Your task to perform on an android device: turn notification dots off Image 0: 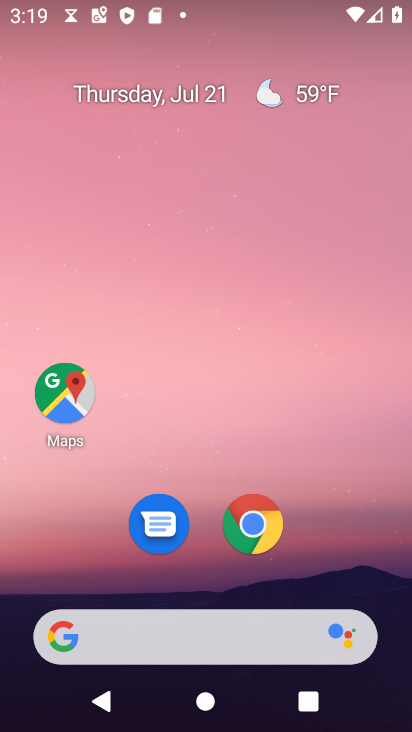
Step 0: press home button
Your task to perform on an android device: turn notification dots off Image 1: 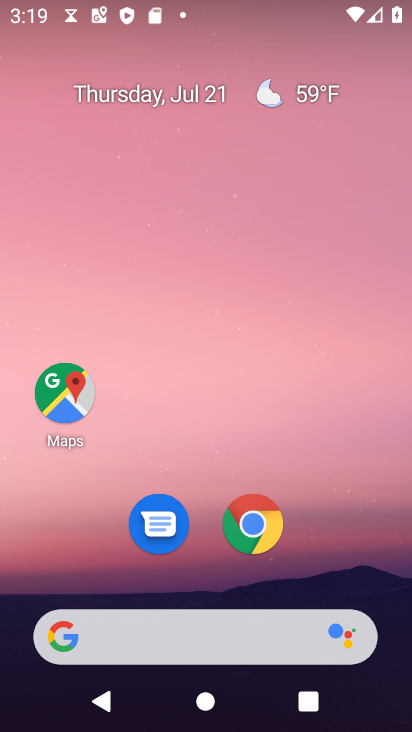
Step 1: drag from (202, 402) to (252, 77)
Your task to perform on an android device: turn notification dots off Image 2: 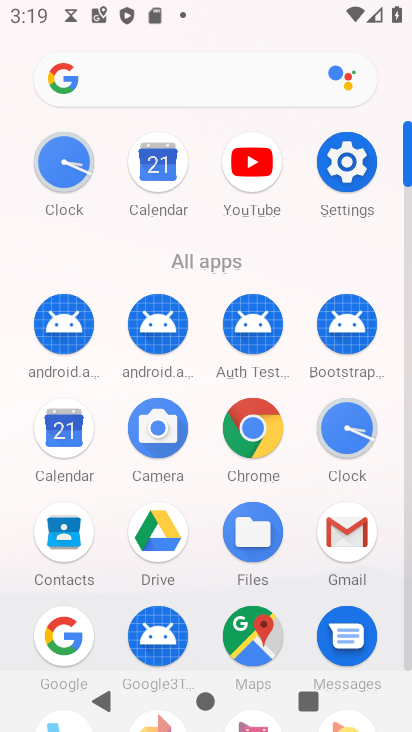
Step 2: click (354, 174)
Your task to perform on an android device: turn notification dots off Image 3: 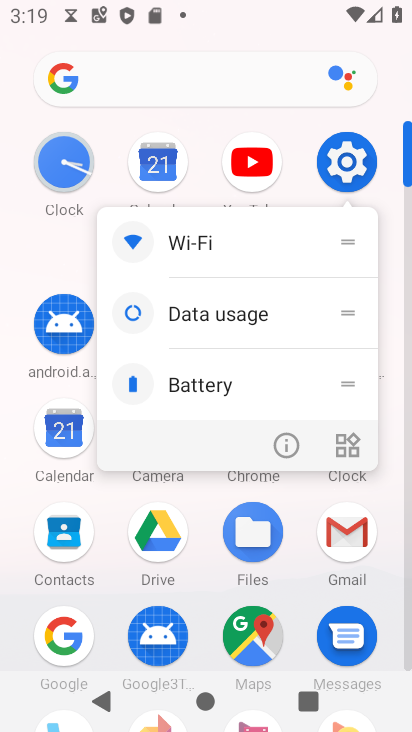
Step 3: click (351, 163)
Your task to perform on an android device: turn notification dots off Image 4: 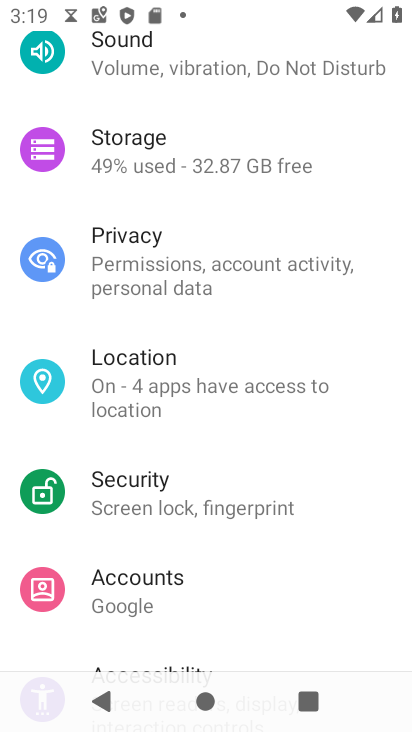
Step 4: drag from (341, 132) to (295, 621)
Your task to perform on an android device: turn notification dots off Image 5: 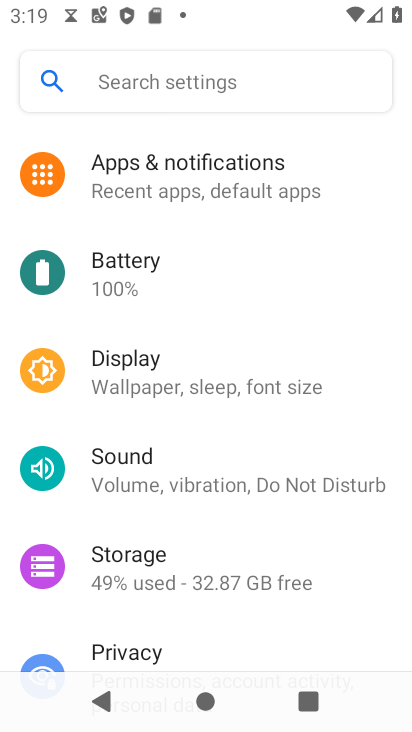
Step 5: click (220, 159)
Your task to perform on an android device: turn notification dots off Image 6: 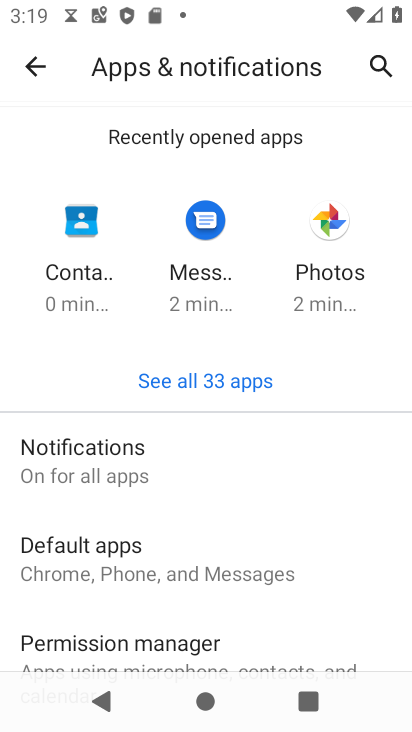
Step 6: click (129, 465)
Your task to perform on an android device: turn notification dots off Image 7: 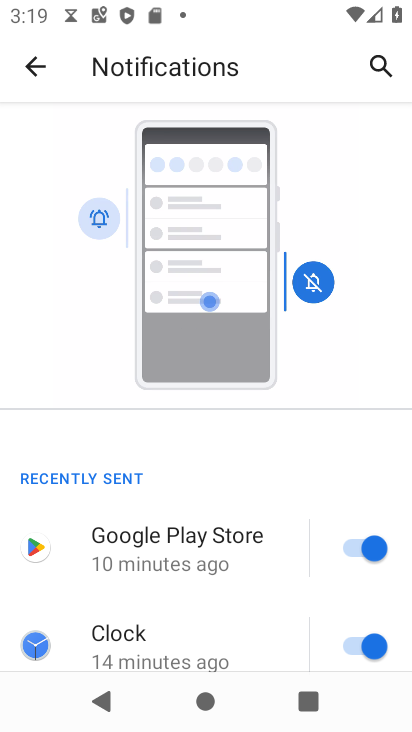
Step 7: drag from (201, 600) to (262, 85)
Your task to perform on an android device: turn notification dots off Image 8: 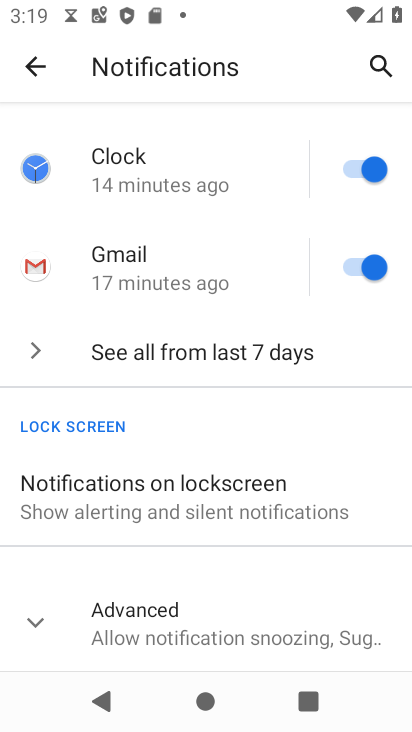
Step 8: click (175, 620)
Your task to perform on an android device: turn notification dots off Image 9: 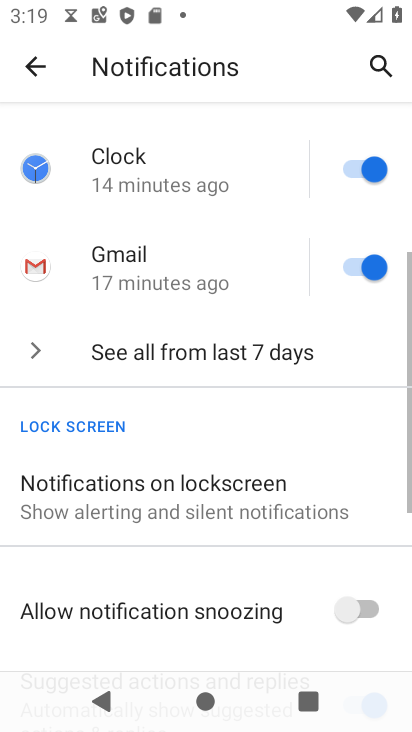
Step 9: drag from (211, 644) to (288, 93)
Your task to perform on an android device: turn notification dots off Image 10: 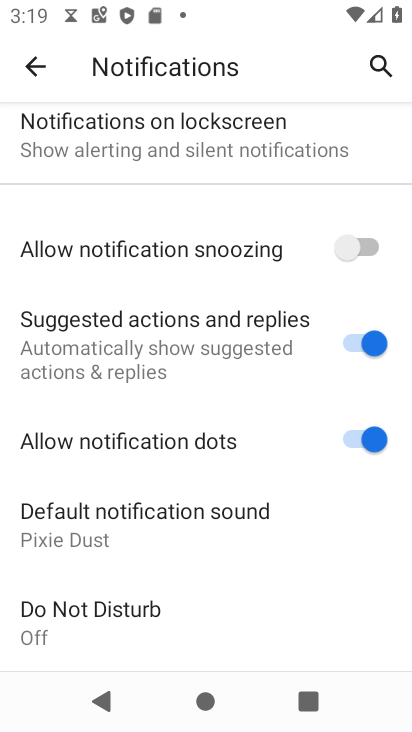
Step 10: click (359, 439)
Your task to perform on an android device: turn notification dots off Image 11: 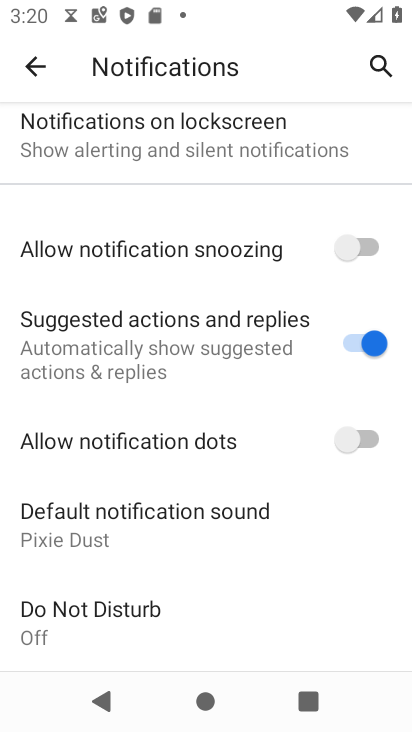
Step 11: task complete